Your task to perform on an android device: delete location history Image 0: 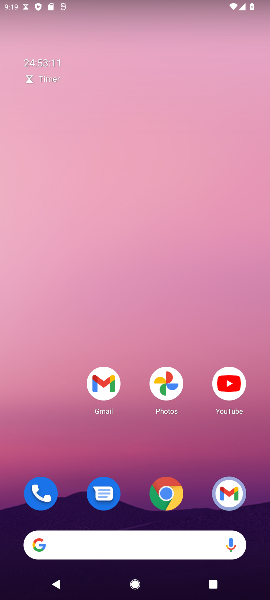
Step 0: drag from (41, 442) to (0, 189)
Your task to perform on an android device: delete location history Image 1: 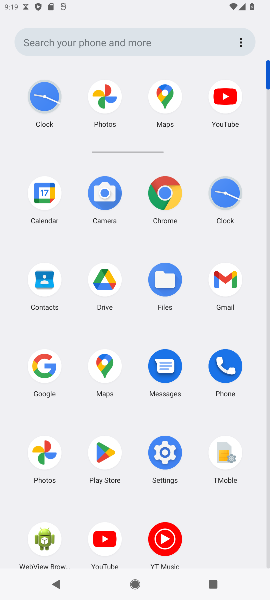
Step 1: click (164, 456)
Your task to perform on an android device: delete location history Image 2: 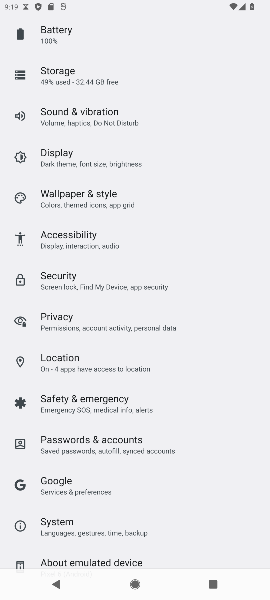
Step 2: click (57, 356)
Your task to perform on an android device: delete location history Image 3: 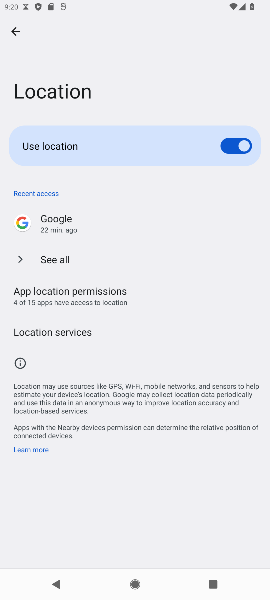
Step 3: task complete